Your task to perform on an android device: Go to Reddit.com Image 0: 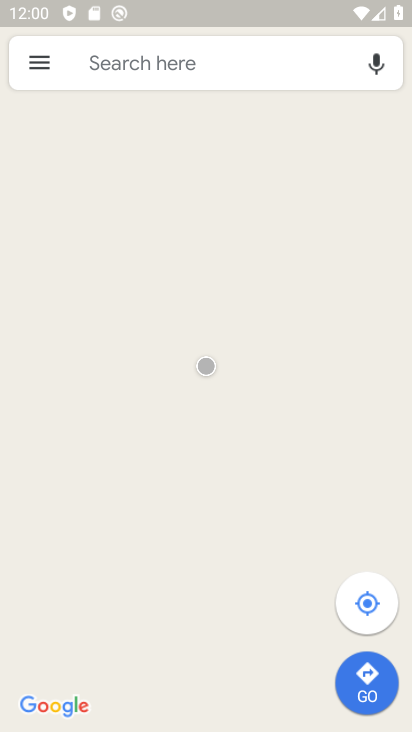
Step 0: press back button
Your task to perform on an android device: Go to Reddit.com Image 1: 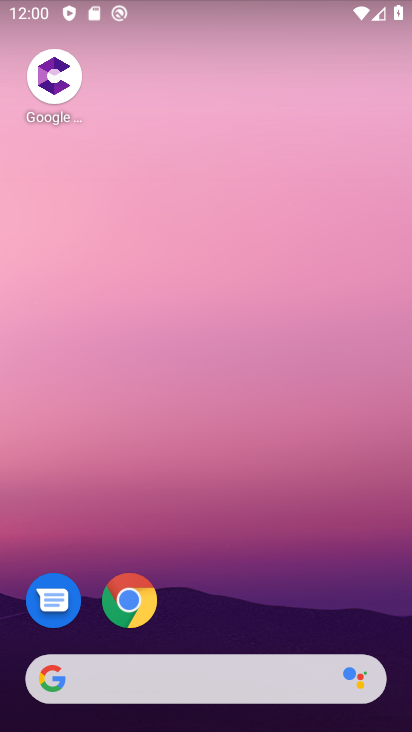
Step 1: drag from (294, 570) to (268, 55)
Your task to perform on an android device: Go to Reddit.com Image 2: 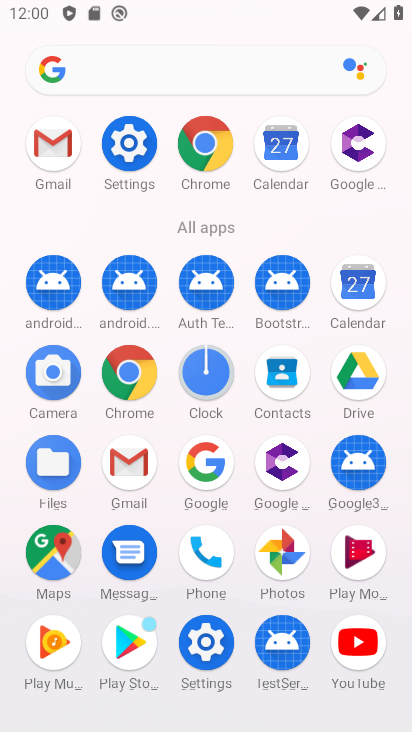
Step 2: click (127, 368)
Your task to perform on an android device: Go to Reddit.com Image 3: 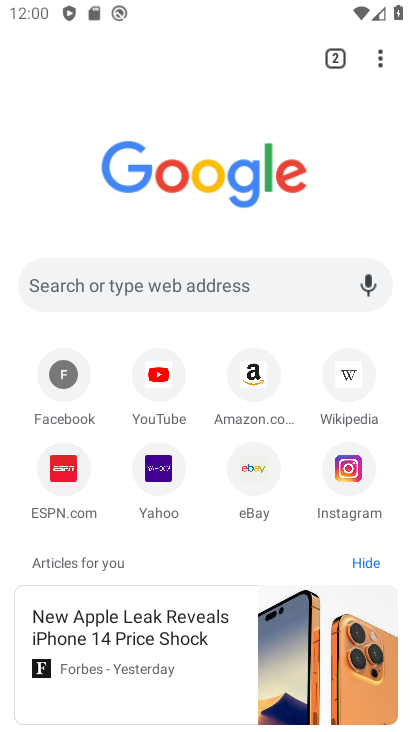
Step 3: click (281, 277)
Your task to perform on an android device: Go to Reddit.com Image 4: 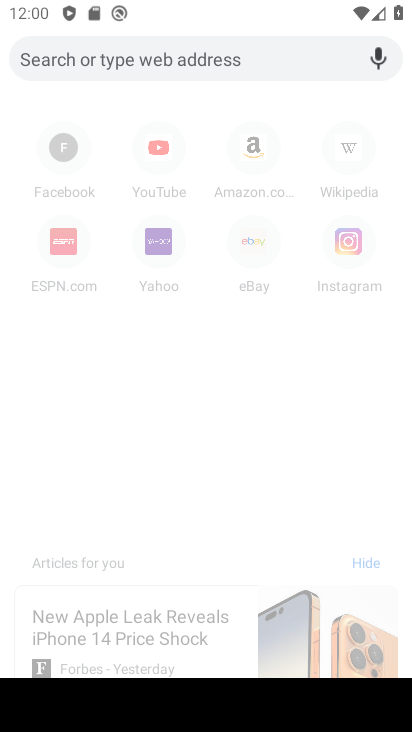
Step 4: type "Is it going to rain today?"
Your task to perform on an android device: Go to Reddit.com Image 5: 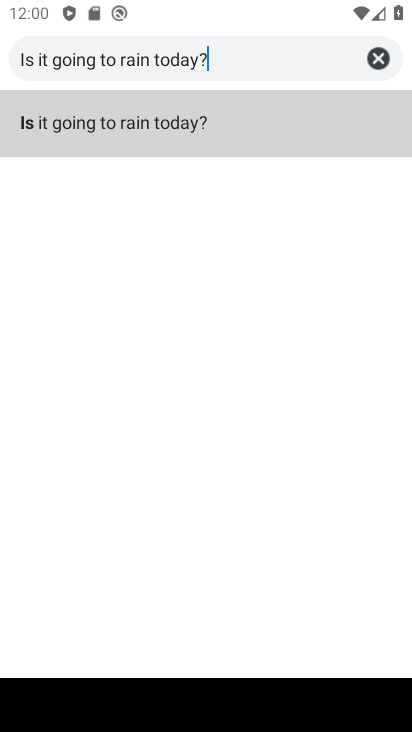
Step 5: type ""
Your task to perform on an android device: Go to Reddit.com Image 6: 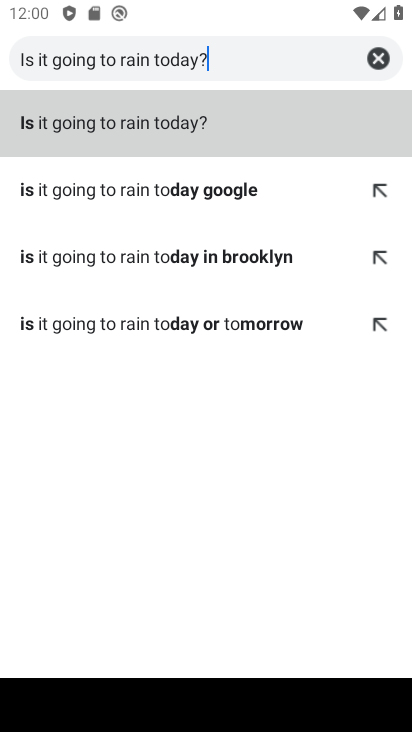
Step 6: click (190, 130)
Your task to perform on an android device: Go to Reddit.com Image 7: 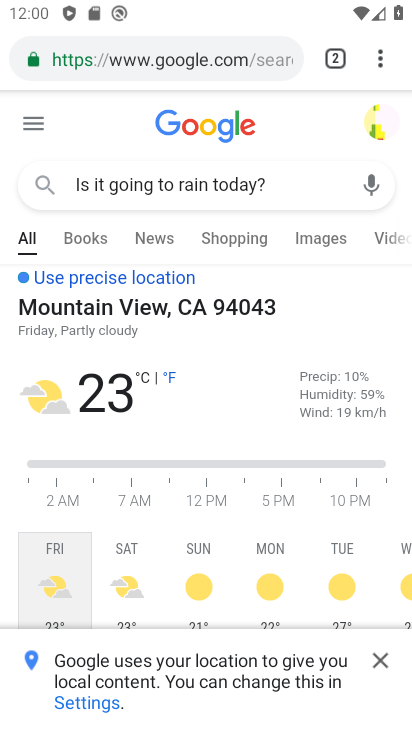
Step 7: click (243, 43)
Your task to perform on an android device: Go to Reddit.com Image 8: 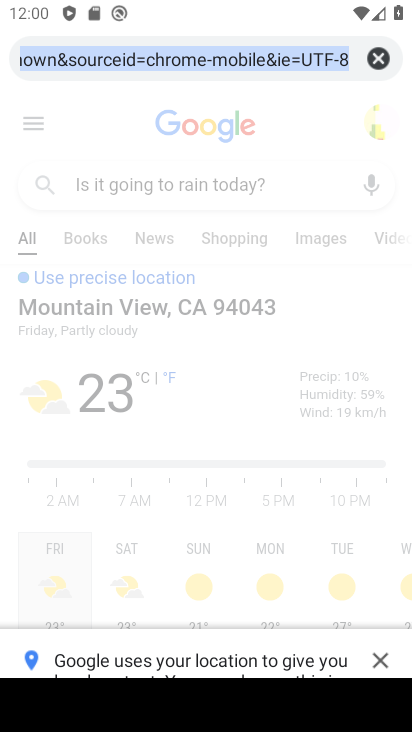
Step 8: click (374, 57)
Your task to perform on an android device: Go to Reddit.com Image 9: 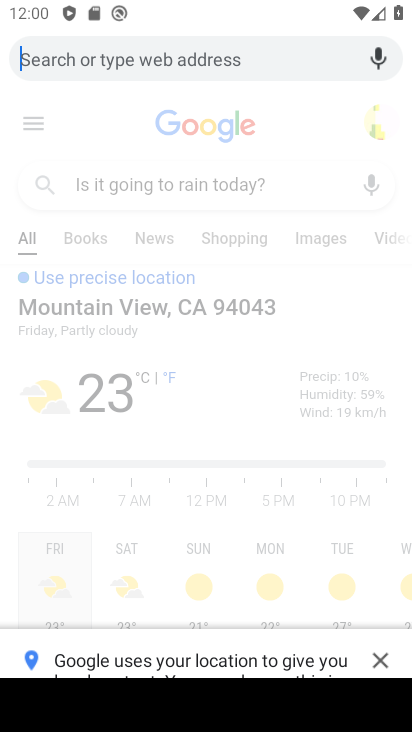
Step 9: type "Reddit.com"
Your task to perform on an android device: Go to Reddit.com Image 10: 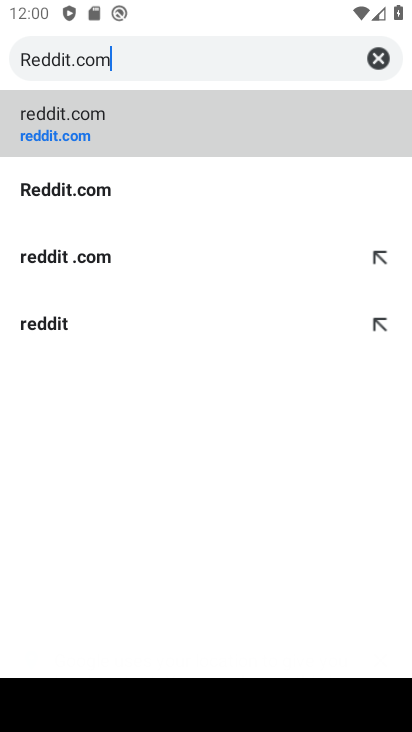
Step 10: type ""
Your task to perform on an android device: Go to Reddit.com Image 11: 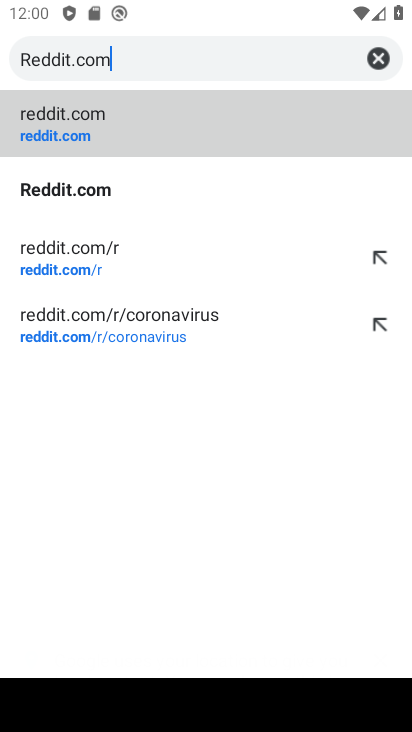
Step 11: click (116, 134)
Your task to perform on an android device: Go to Reddit.com Image 12: 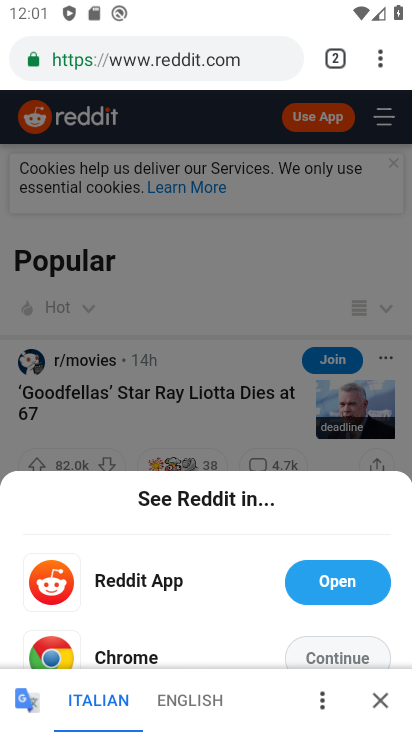
Step 12: task complete